Your task to perform on an android device: Is it going to rain tomorrow? Image 0: 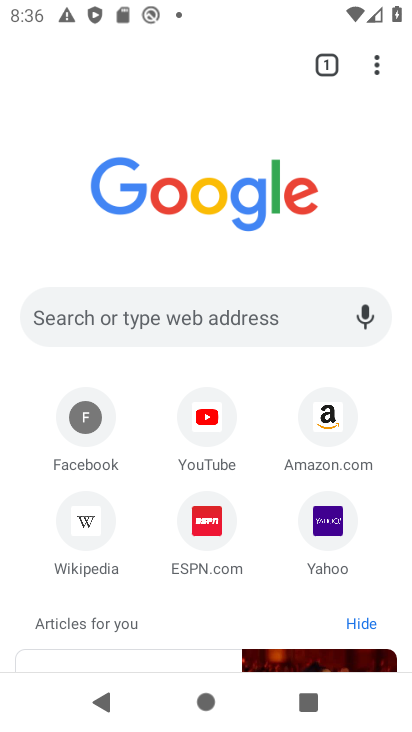
Step 0: press home button
Your task to perform on an android device: Is it going to rain tomorrow? Image 1: 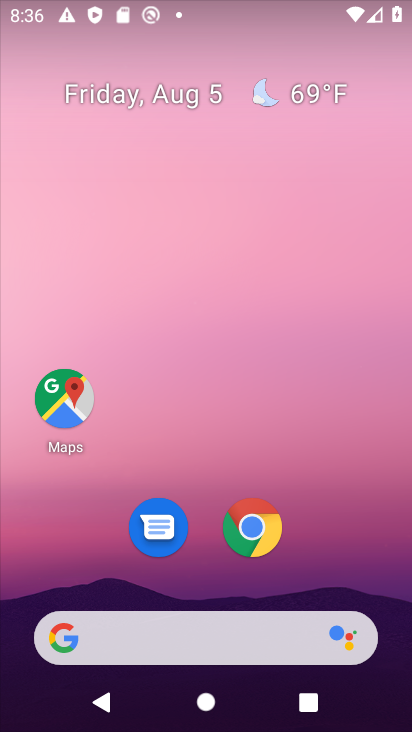
Step 1: drag from (92, 601) to (145, 13)
Your task to perform on an android device: Is it going to rain tomorrow? Image 2: 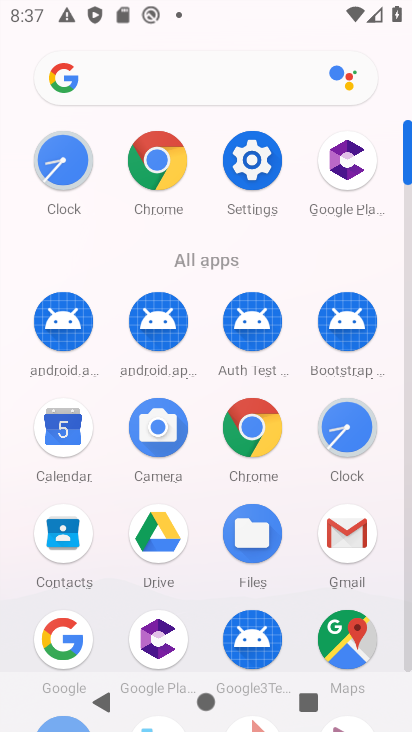
Step 2: drag from (388, 459) to (409, 23)
Your task to perform on an android device: Is it going to rain tomorrow? Image 3: 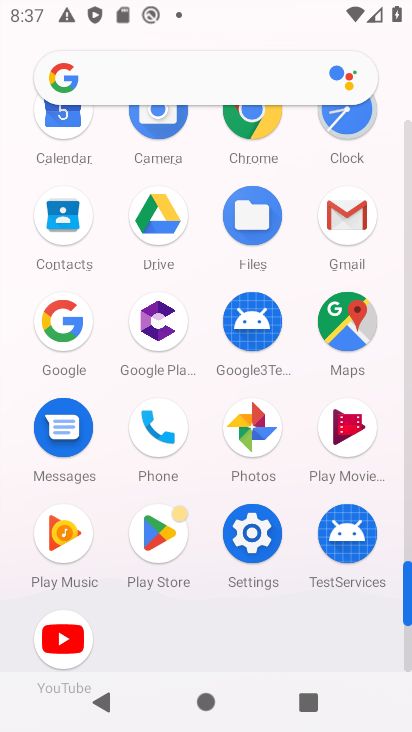
Step 3: click (59, 328)
Your task to perform on an android device: Is it going to rain tomorrow? Image 4: 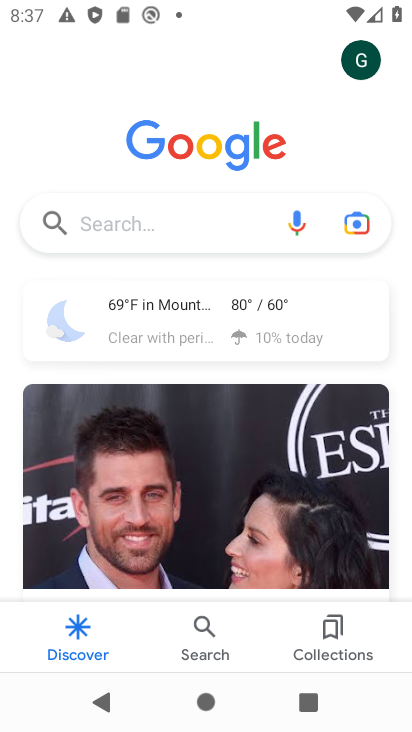
Step 4: click (137, 320)
Your task to perform on an android device: Is it going to rain tomorrow? Image 5: 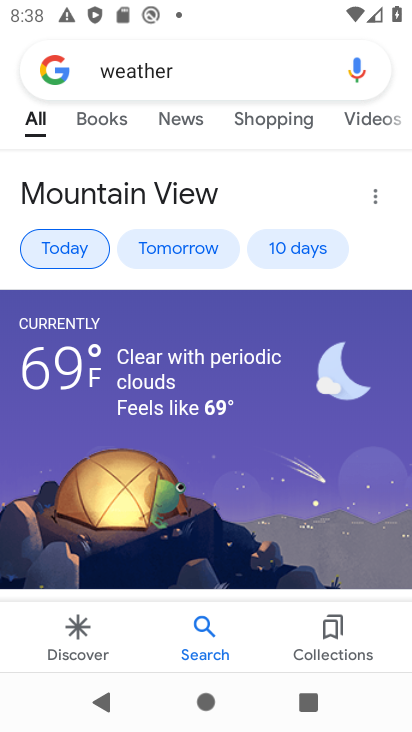
Step 5: task complete